Your task to perform on an android device: Go to Google Image 0: 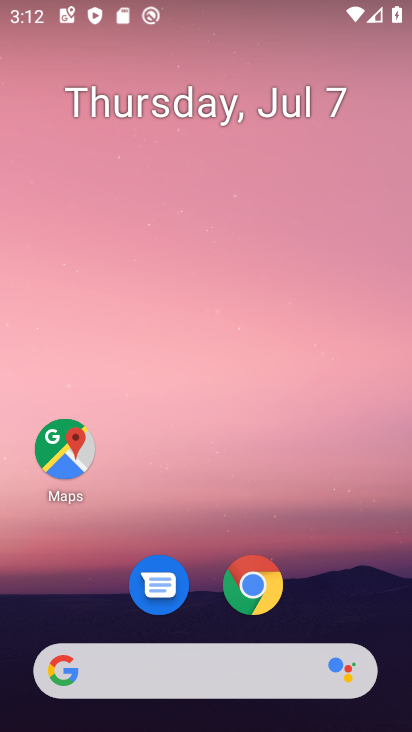
Step 0: click (127, 666)
Your task to perform on an android device: Go to Google Image 1: 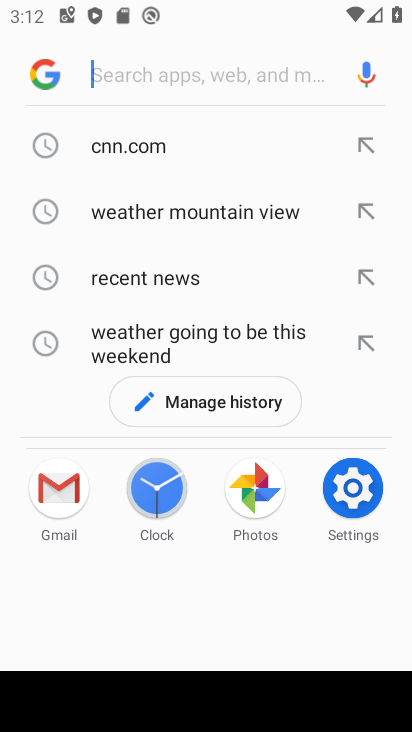
Step 1: click (42, 70)
Your task to perform on an android device: Go to Google Image 2: 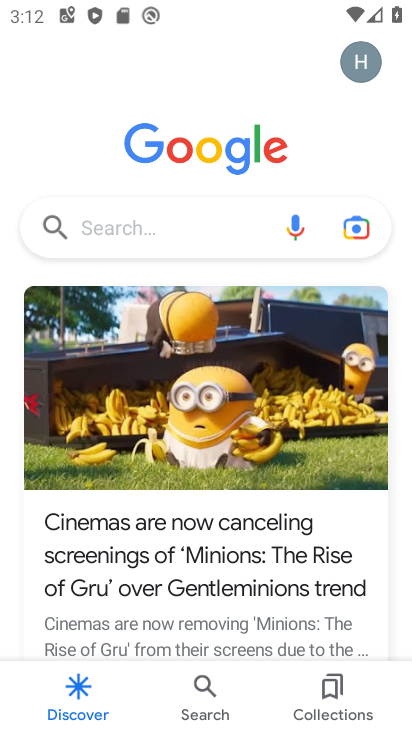
Step 2: task complete